Your task to perform on an android device: Open Google Maps and go to "Timeline" Image 0: 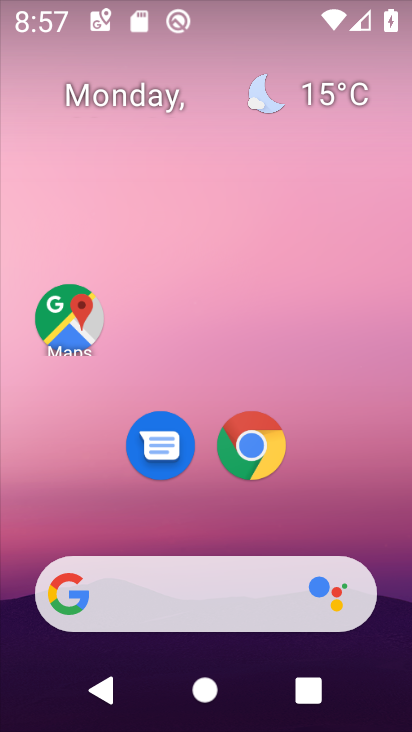
Step 0: click (70, 320)
Your task to perform on an android device: Open Google Maps and go to "Timeline" Image 1: 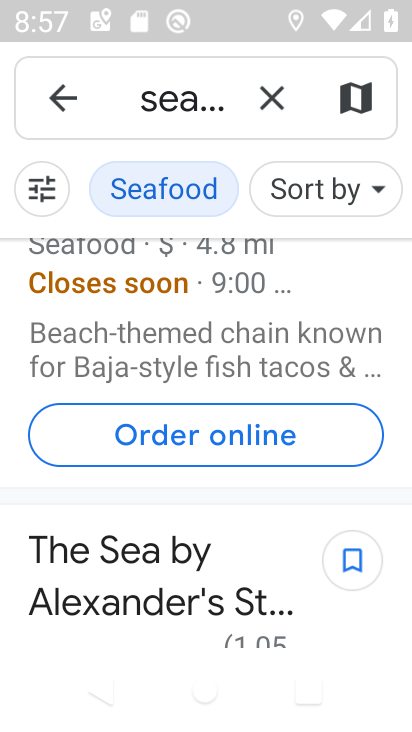
Step 1: click (60, 103)
Your task to perform on an android device: Open Google Maps and go to "Timeline" Image 2: 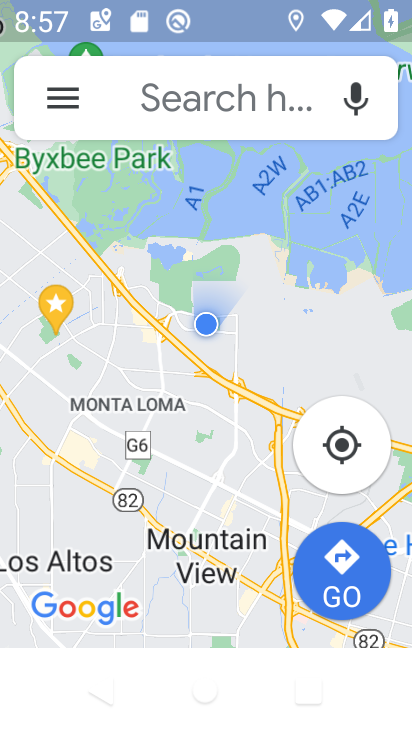
Step 2: click (63, 99)
Your task to perform on an android device: Open Google Maps and go to "Timeline" Image 3: 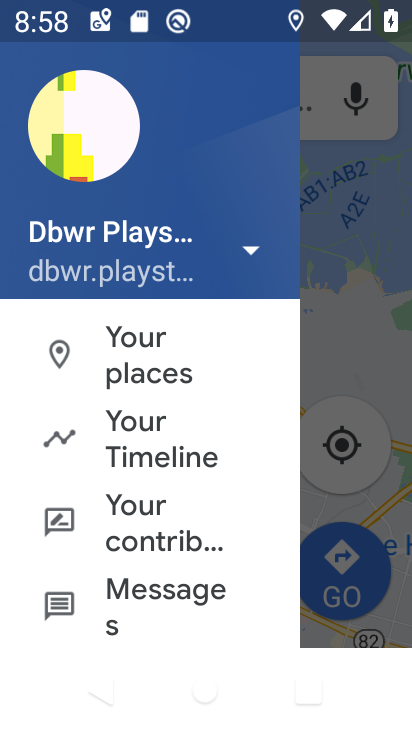
Step 3: click (126, 452)
Your task to perform on an android device: Open Google Maps and go to "Timeline" Image 4: 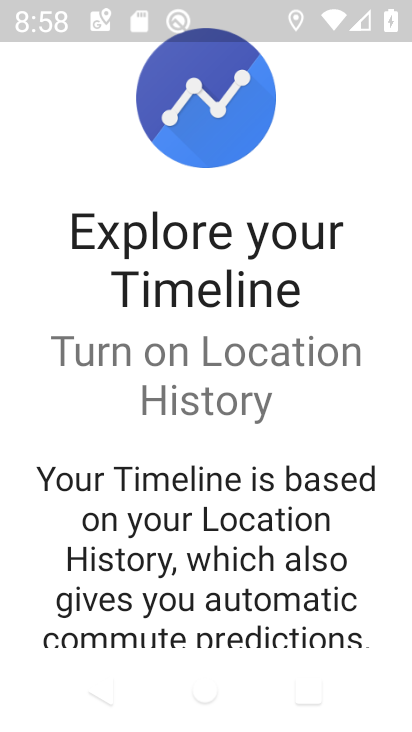
Step 4: drag from (225, 638) to (243, 158)
Your task to perform on an android device: Open Google Maps and go to "Timeline" Image 5: 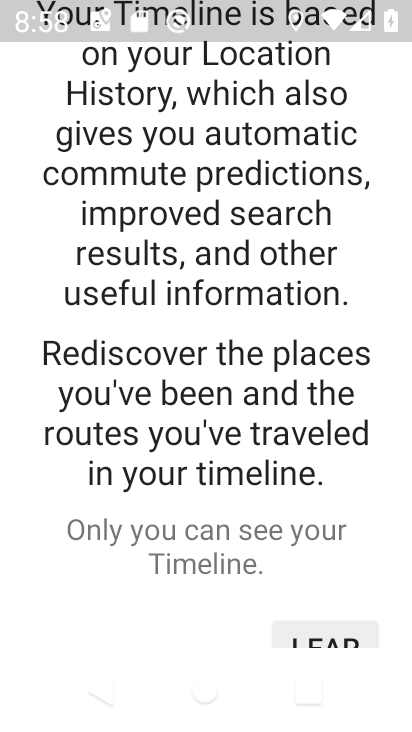
Step 5: drag from (285, 563) to (301, 153)
Your task to perform on an android device: Open Google Maps and go to "Timeline" Image 6: 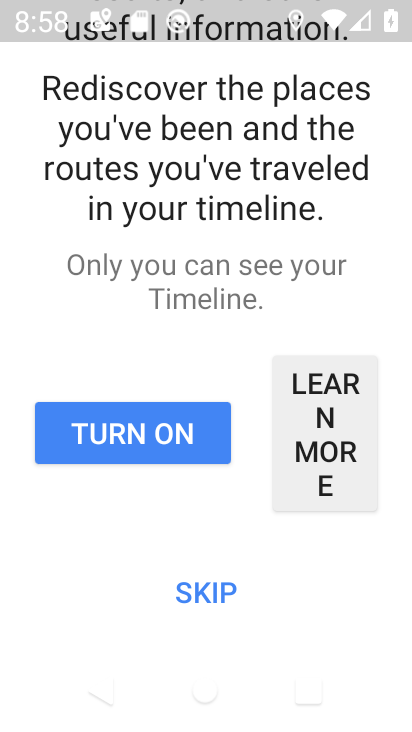
Step 6: click (111, 434)
Your task to perform on an android device: Open Google Maps and go to "Timeline" Image 7: 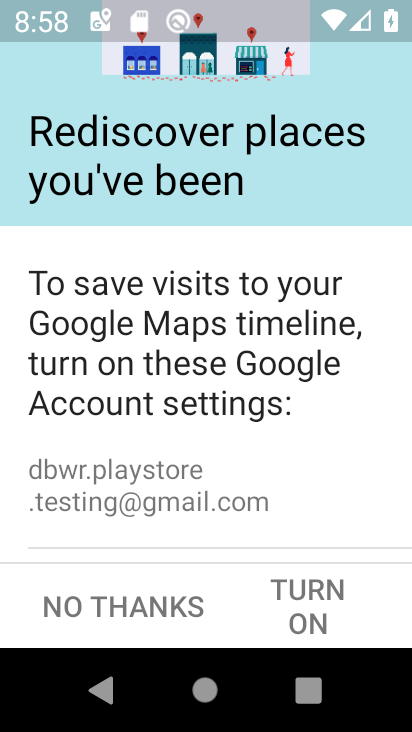
Step 7: click (316, 603)
Your task to perform on an android device: Open Google Maps and go to "Timeline" Image 8: 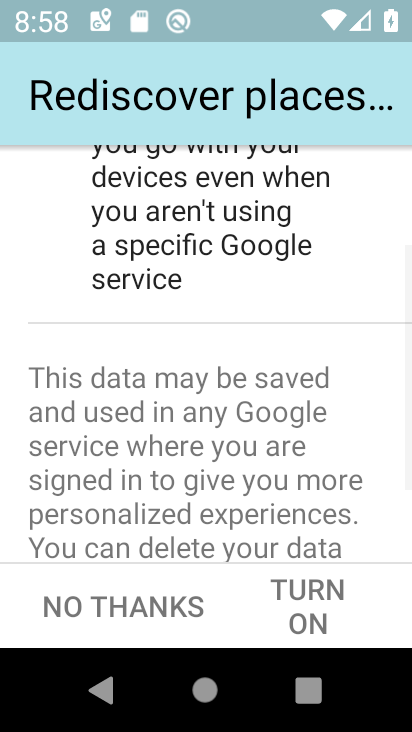
Step 8: click (316, 603)
Your task to perform on an android device: Open Google Maps and go to "Timeline" Image 9: 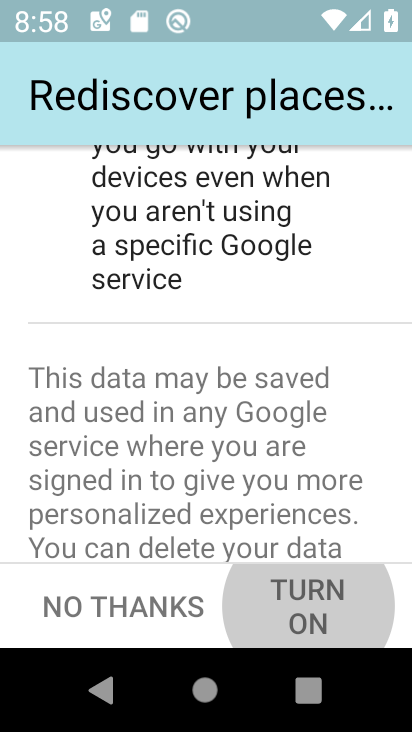
Step 9: click (316, 603)
Your task to perform on an android device: Open Google Maps and go to "Timeline" Image 10: 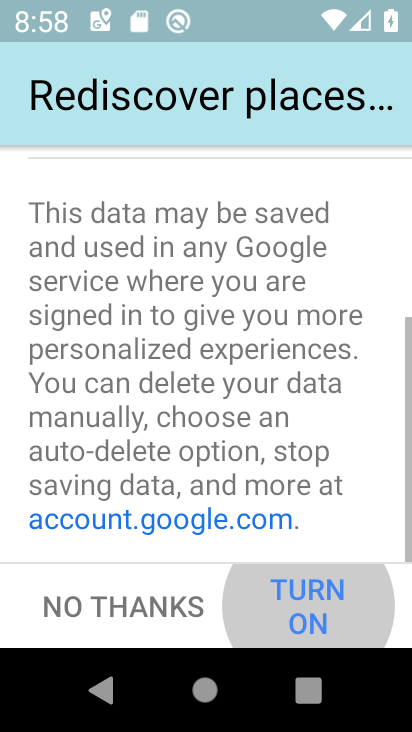
Step 10: click (316, 603)
Your task to perform on an android device: Open Google Maps and go to "Timeline" Image 11: 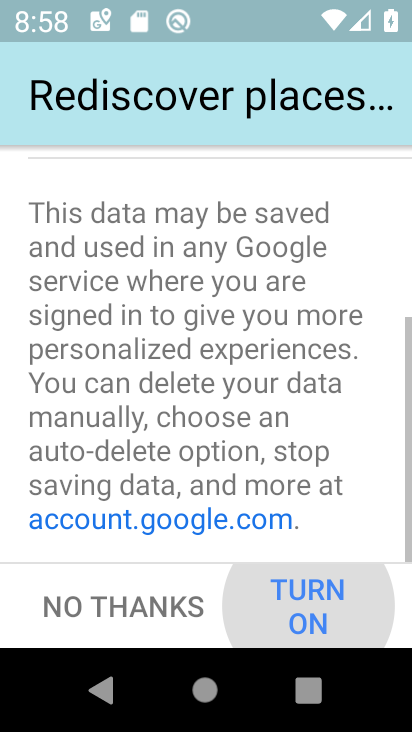
Step 11: click (316, 603)
Your task to perform on an android device: Open Google Maps and go to "Timeline" Image 12: 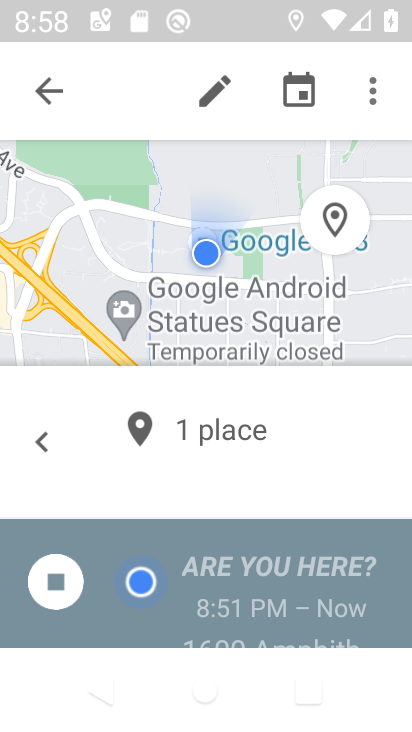
Step 12: task complete